Your task to perform on an android device: Open Google Chrome and click the shortcut for Amazon.com Image 0: 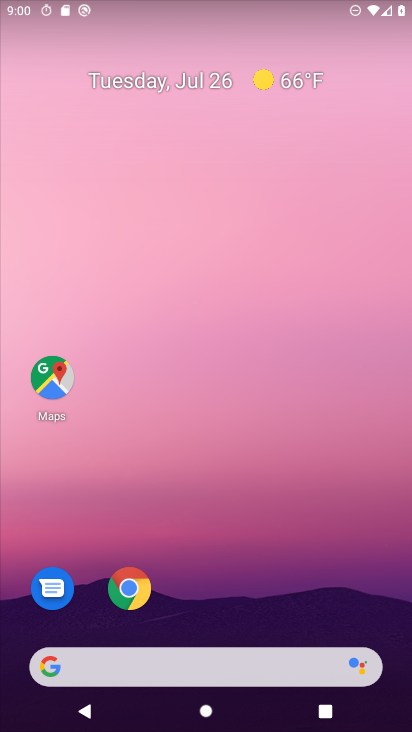
Step 0: click (131, 590)
Your task to perform on an android device: Open Google Chrome and click the shortcut for Amazon.com Image 1: 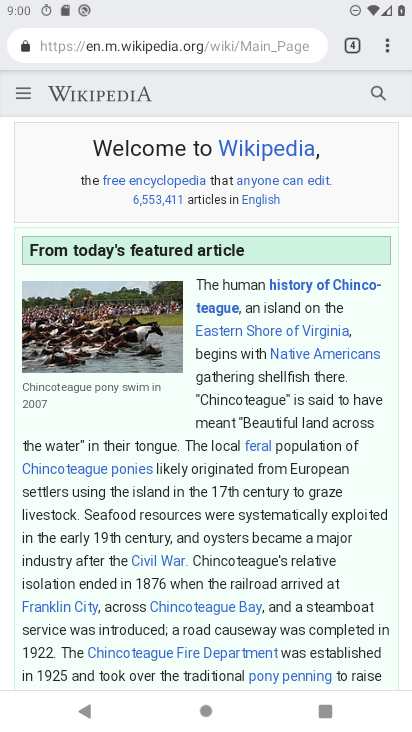
Step 1: click (388, 49)
Your task to perform on an android device: Open Google Chrome and click the shortcut for Amazon.com Image 2: 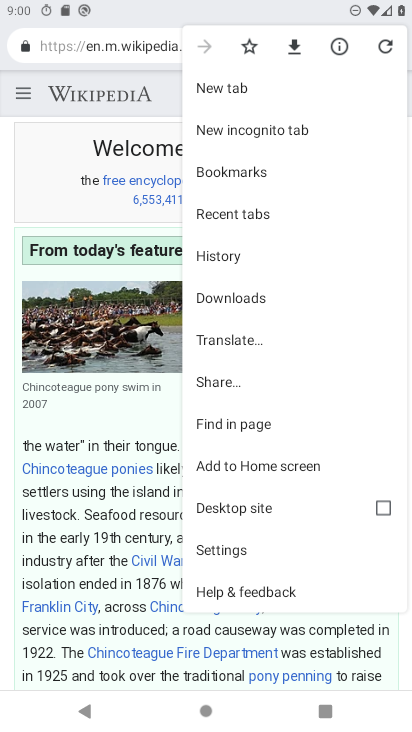
Step 2: click (222, 80)
Your task to perform on an android device: Open Google Chrome and click the shortcut for Amazon.com Image 3: 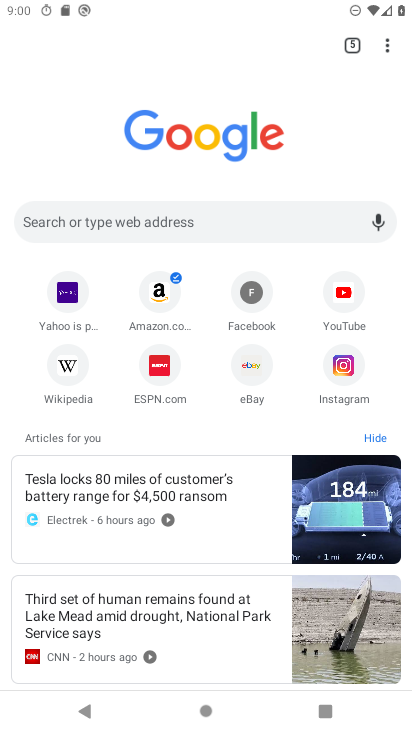
Step 3: click (154, 285)
Your task to perform on an android device: Open Google Chrome and click the shortcut for Amazon.com Image 4: 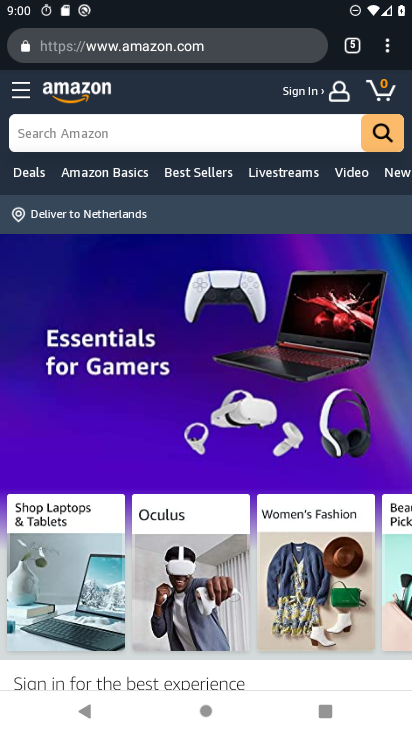
Step 4: task complete